Your task to perform on an android device: turn on priority inbox in the gmail app Image 0: 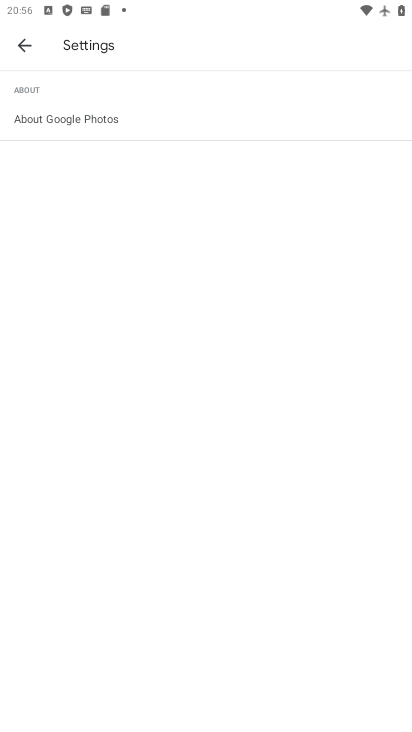
Step 0: press home button
Your task to perform on an android device: turn on priority inbox in the gmail app Image 1: 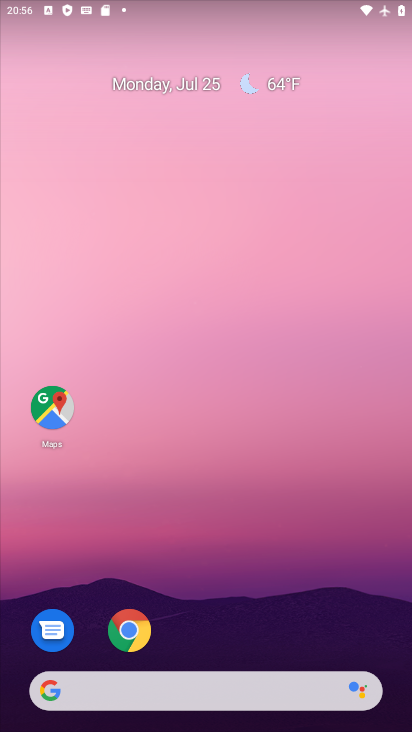
Step 1: drag from (381, 637) to (317, 150)
Your task to perform on an android device: turn on priority inbox in the gmail app Image 2: 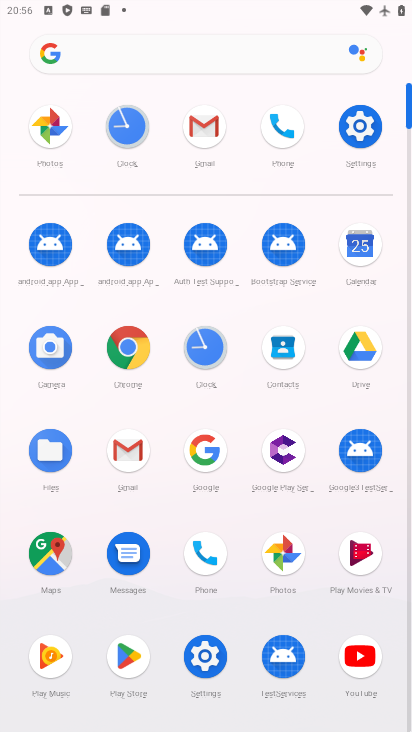
Step 2: click (127, 450)
Your task to perform on an android device: turn on priority inbox in the gmail app Image 3: 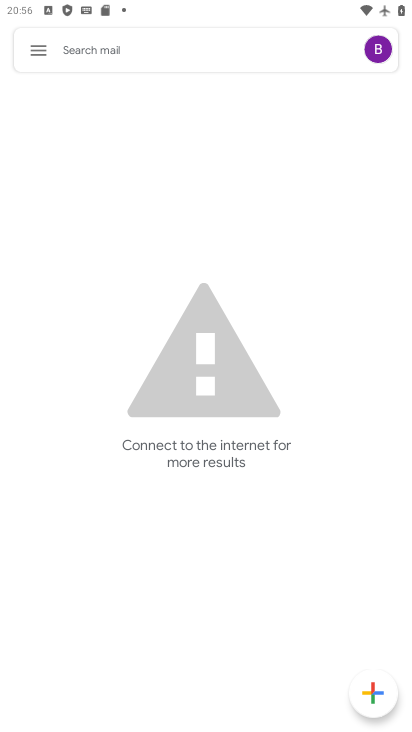
Step 3: click (34, 50)
Your task to perform on an android device: turn on priority inbox in the gmail app Image 4: 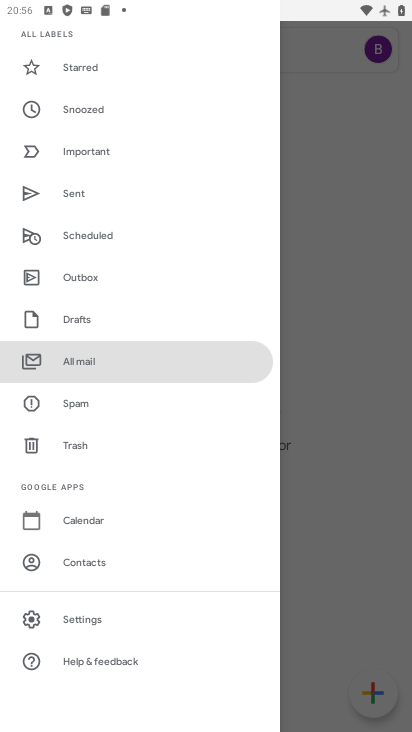
Step 4: click (76, 618)
Your task to perform on an android device: turn on priority inbox in the gmail app Image 5: 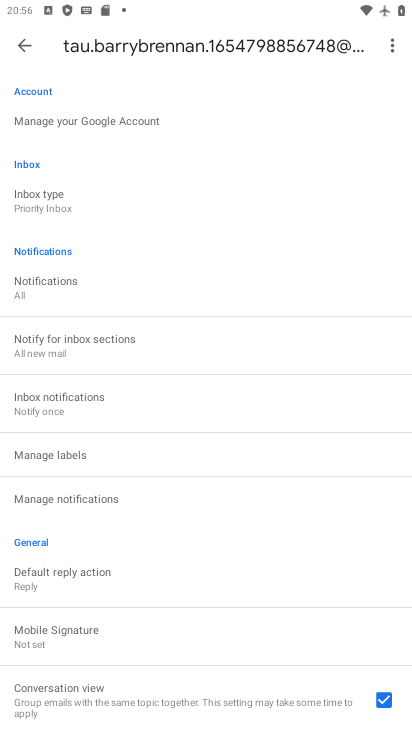
Step 5: click (33, 190)
Your task to perform on an android device: turn on priority inbox in the gmail app Image 6: 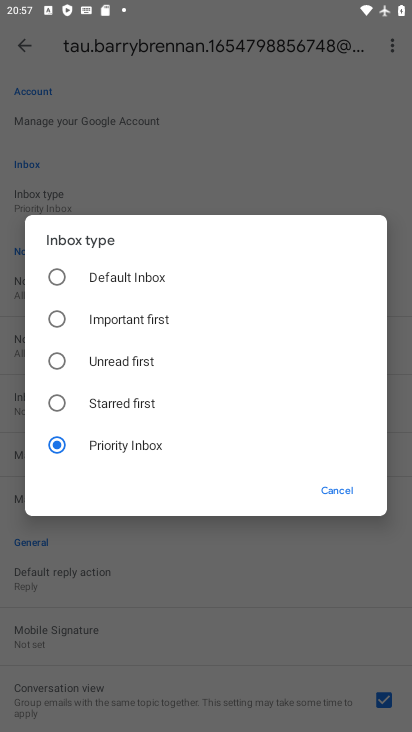
Step 6: task complete